Your task to perform on an android device: toggle location history Image 0: 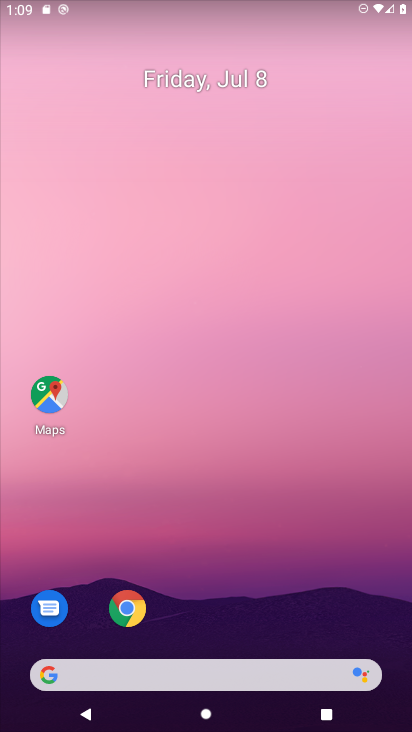
Step 0: drag from (321, 629) to (255, 15)
Your task to perform on an android device: toggle location history Image 1: 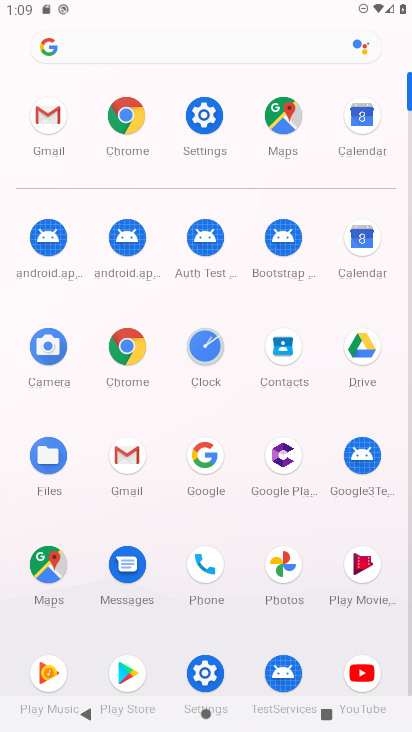
Step 1: click (214, 131)
Your task to perform on an android device: toggle location history Image 2: 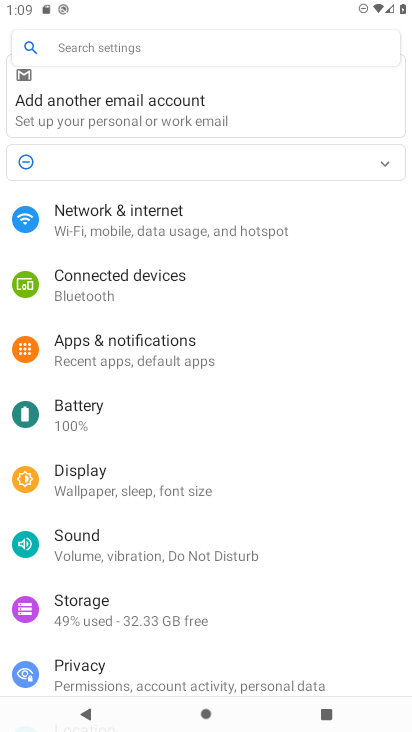
Step 2: click (158, 340)
Your task to perform on an android device: toggle location history Image 3: 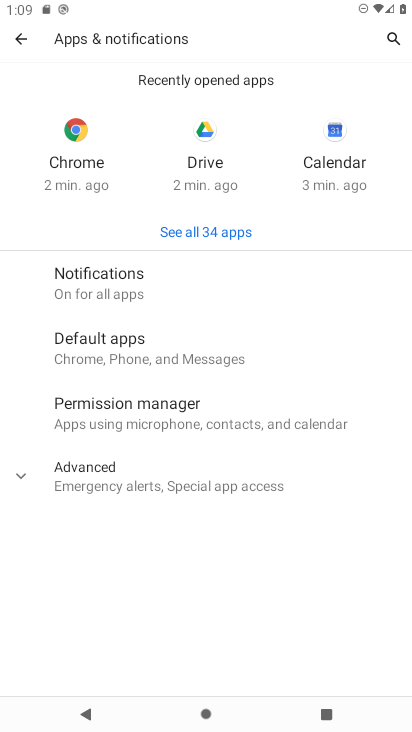
Step 3: click (17, 41)
Your task to perform on an android device: toggle location history Image 4: 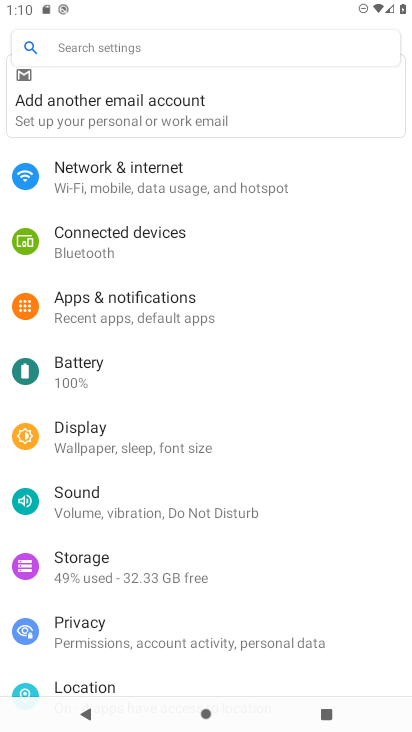
Step 4: click (67, 676)
Your task to perform on an android device: toggle location history Image 5: 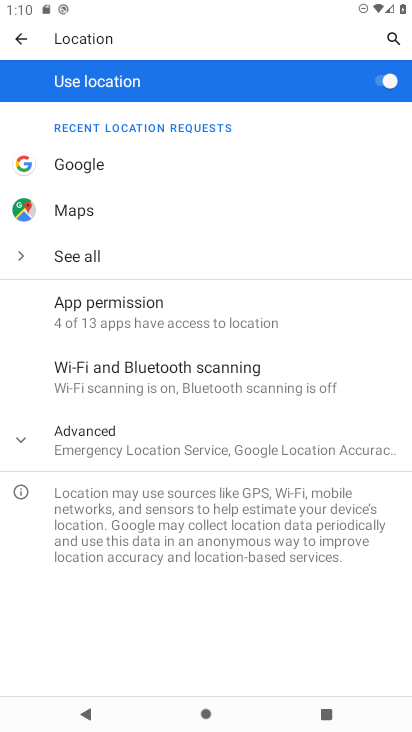
Step 5: click (99, 424)
Your task to perform on an android device: toggle location history Image 6: 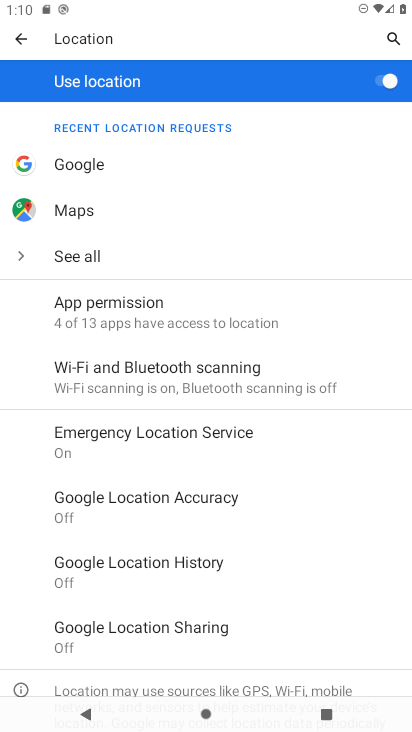
Step 6: click (164, 557)
Your task to perform on an android device: toggle location history Image 7: 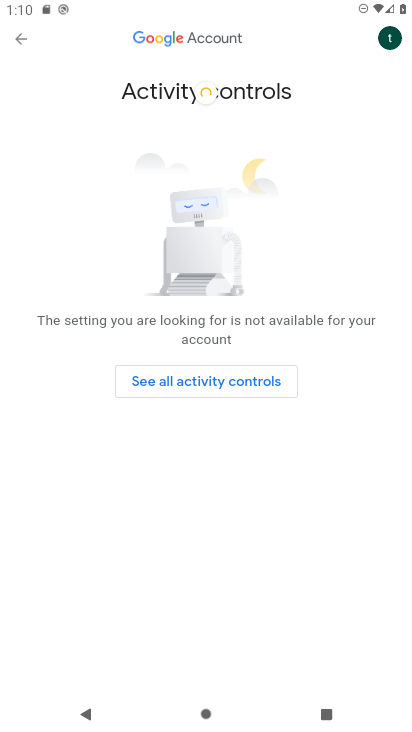
Step 7: task complete